Your task to perform on an android device: Go to settings Image 0: 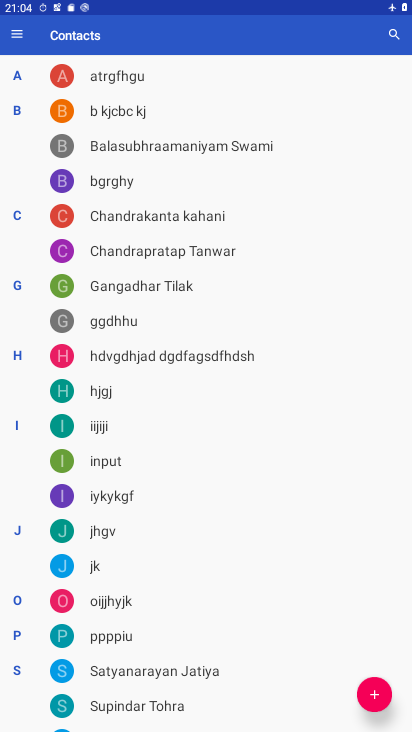
Step 0: press home button
Your task to perform on an android device: Go to settings Image 1: 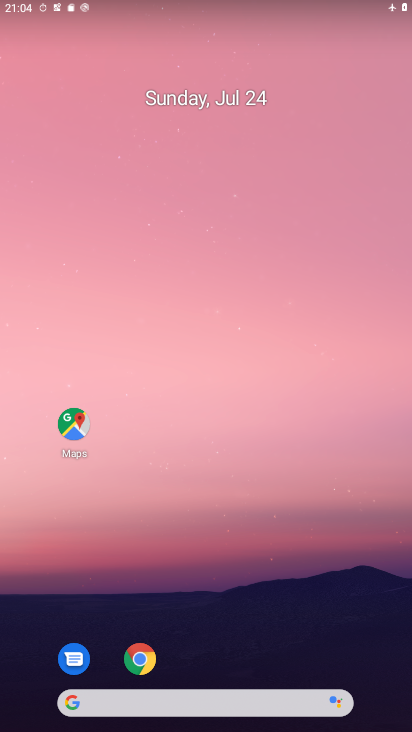
Step 1: drag from (199, 691) to (198, 290)
Your task to perform on an android device: Go to settings Image 2: 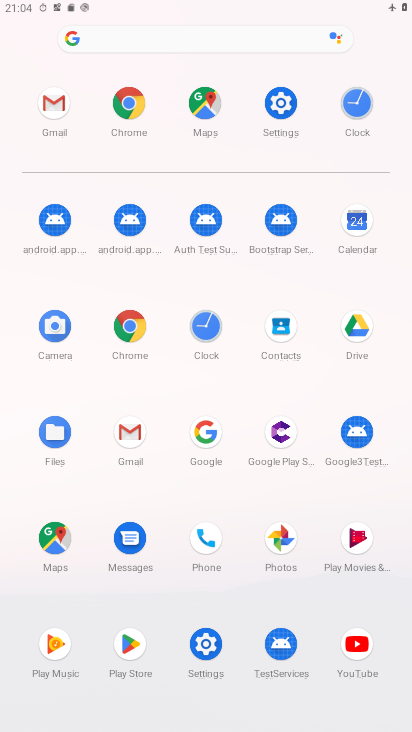
Step 2: click (281, 108)
Your task to perform on an android device: Go to settings Image 3: 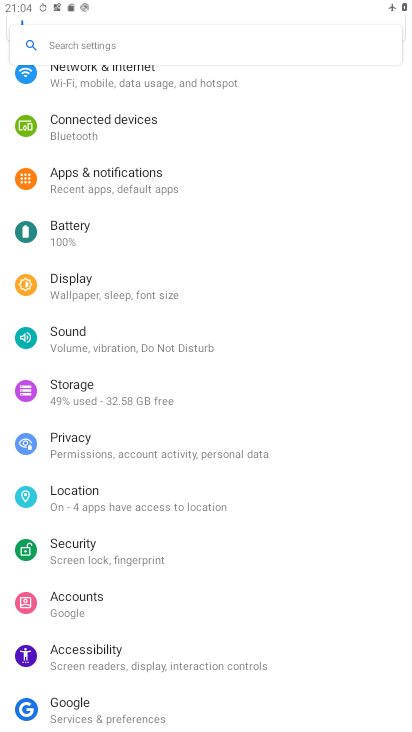
Step 3: task complete